Your task to perform on an android device: Go to internet settings Image 0: 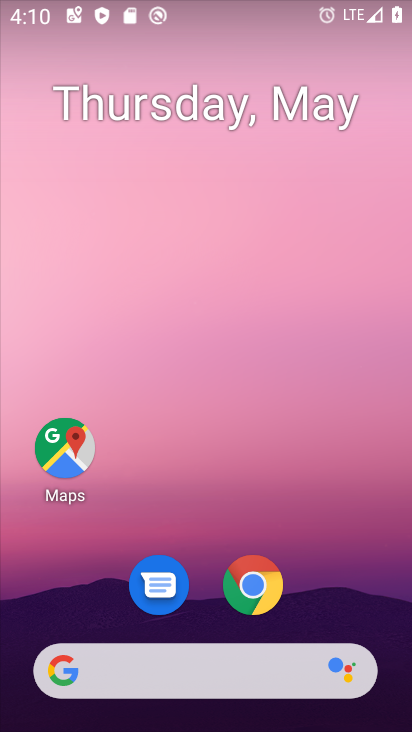
Step 0: drag from (238, 477) to (233, 50)
Your task to perform on an android device: Go to internet settings Image 1: 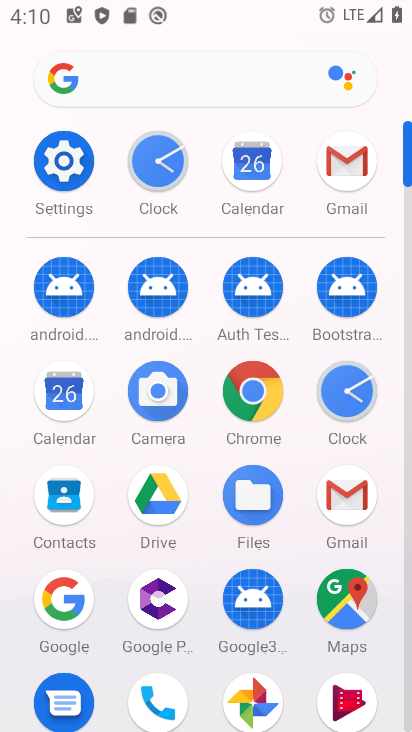
Step 1: click (80, 157)
Your task to perform on an android device: Go to internet settings Image 2: 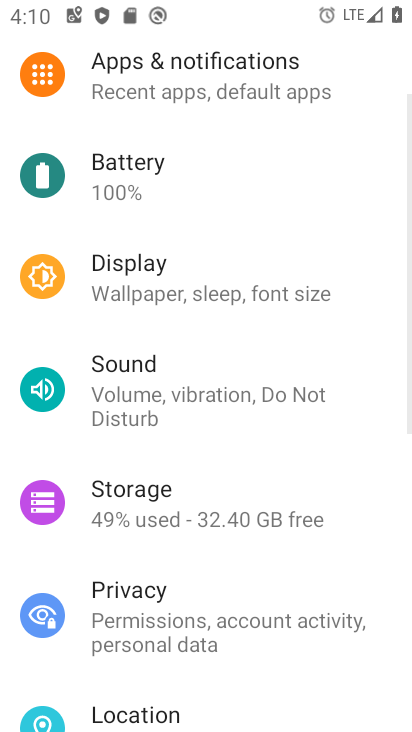
Step 2: drag from (246, 180) to (265, 580)
Your task to perform on an android device: Go to internet settings Image 3: 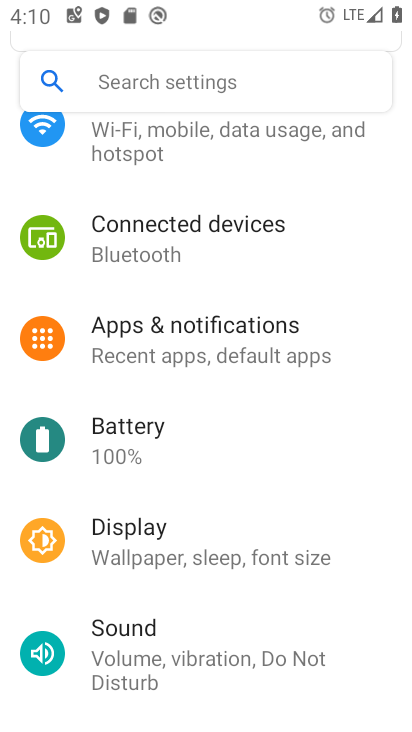
Step 3: drag from (231, 282) to (249, 562)
Your task to perform on an android device: Go to internet settings Image 4: 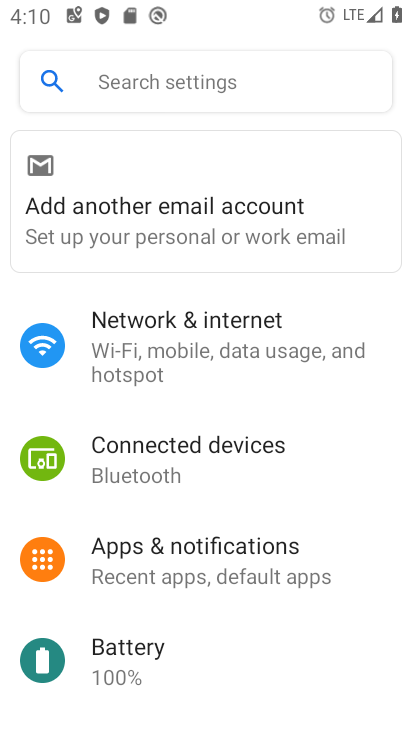
Step 4: click (229, 351)
Your task to perform on an android device: Go to internet settings Image 5: 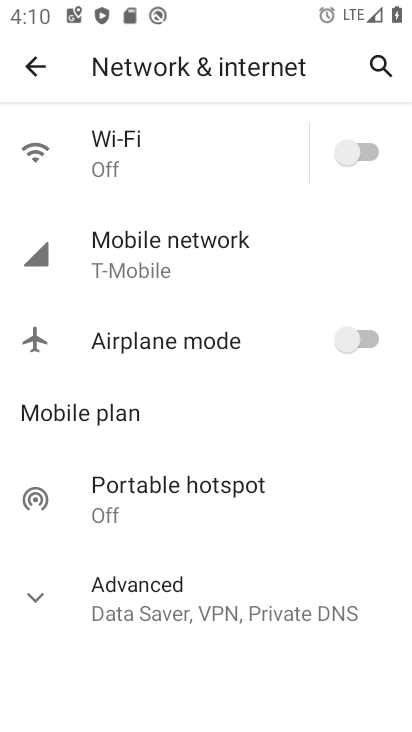
Step 5: task complete